Your task to perform on an android device: What's the weather going to be tomorrow? Image 0: 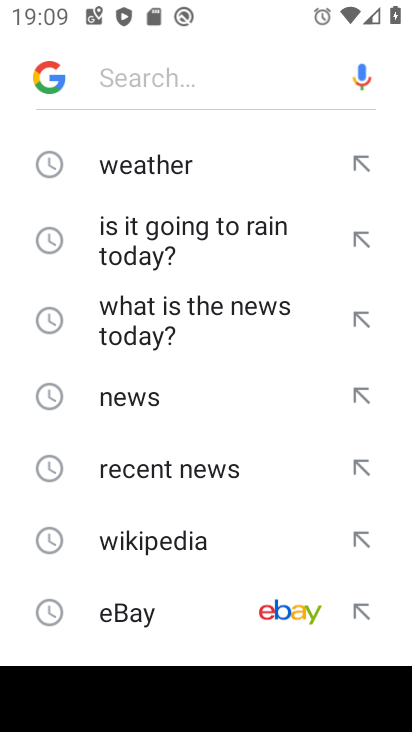
Step 0: press home button
Your task to perform on an android device: What's the weather going to be tomorrow? Image 1: 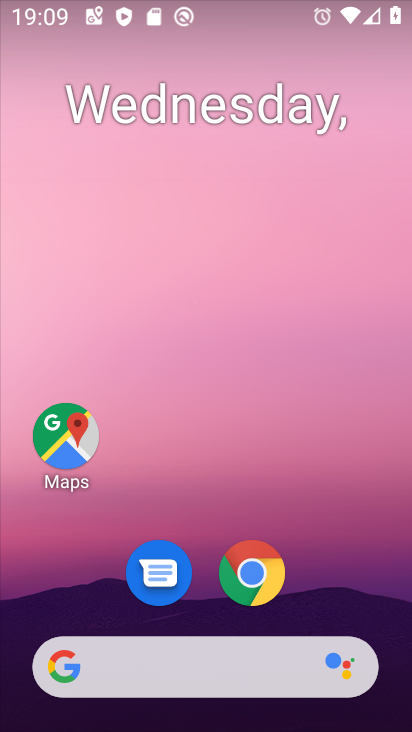
Step 1: drag from (344, 546) to (345, 723)
Your task to perform on an android device: What's the weather going to be tomorrow? Image 2: 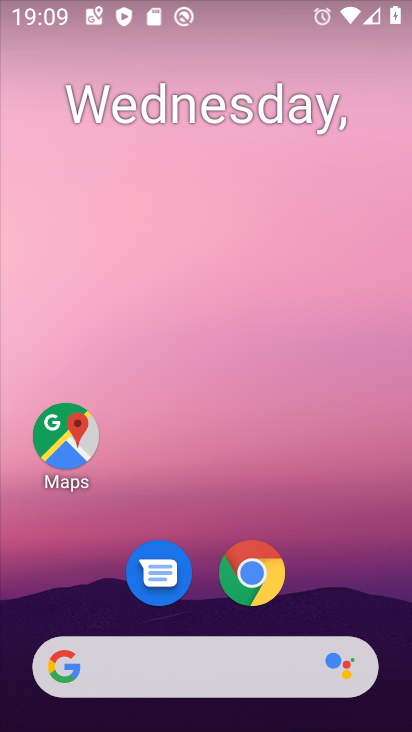
Step 2: drag from (13, 267) to (411, 271)
Your task to perform on an android device: What's the weather going to be tomorrow? Image 3: 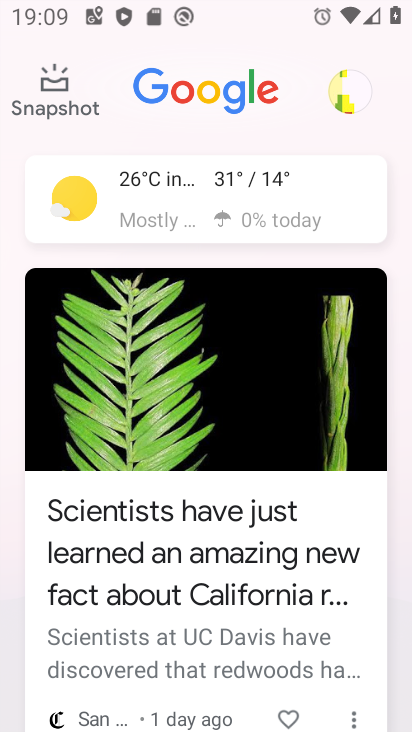
Step 3: click (270, 217)
Your task to perform on an android device: What's the weather going to be tomorrow? Image 4: 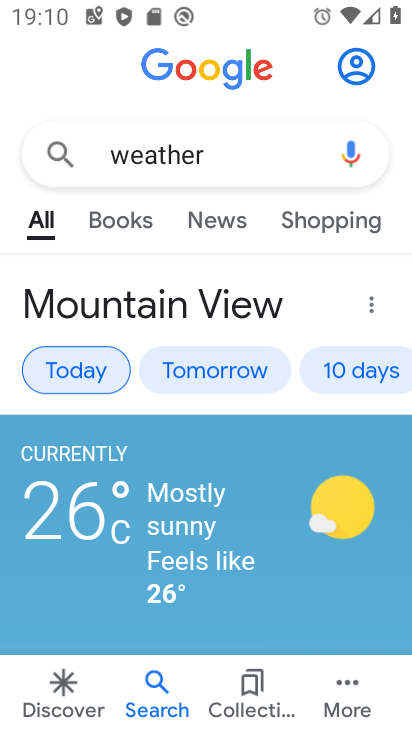
Step 4: click (220, 369)
Your task to perform on an android device: What's the weather going to be tomorrow? Image 5: 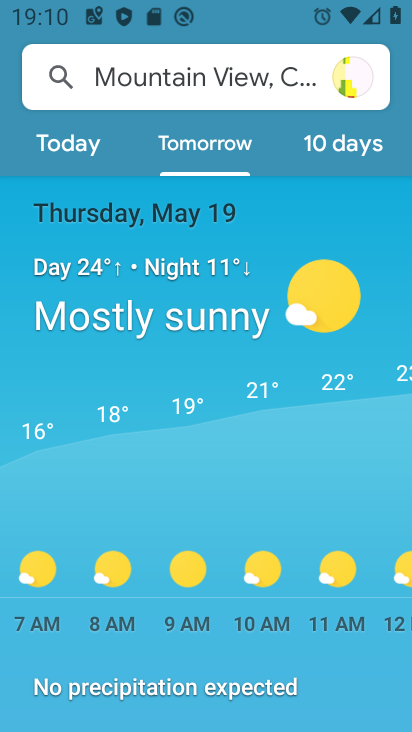
Step 5: task complete